Your task to perform on an android device: refresh tabs in the chrome app Image 0: 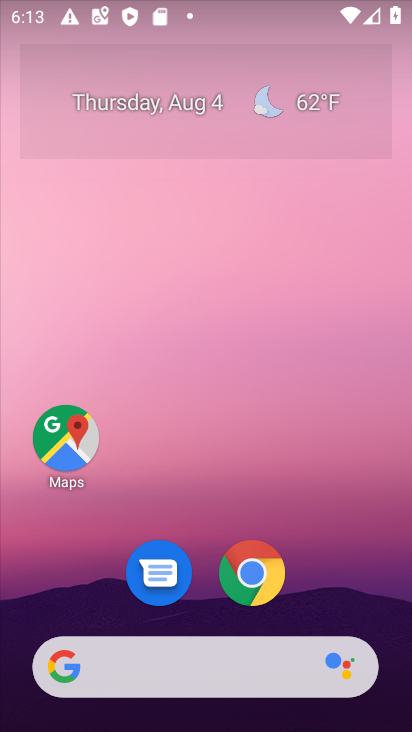
Step 0: click (254, 574)
Your task to perform on an android device: refresh tabs in the chrome app Image 1: 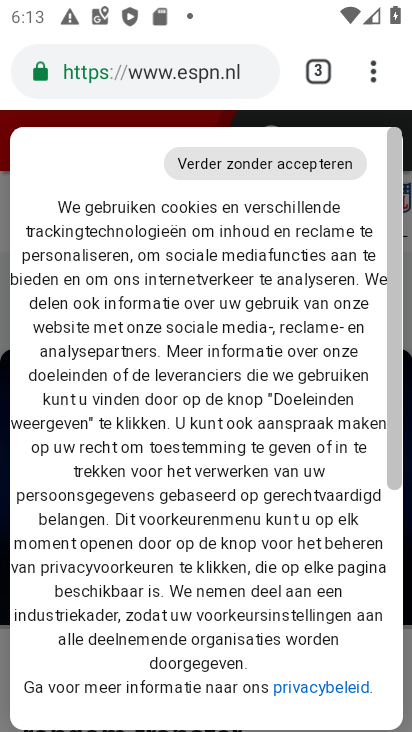
Step 1: click (375, 66)
Your task to perform on an android device: refresh tabs in the chrome app Image 2: 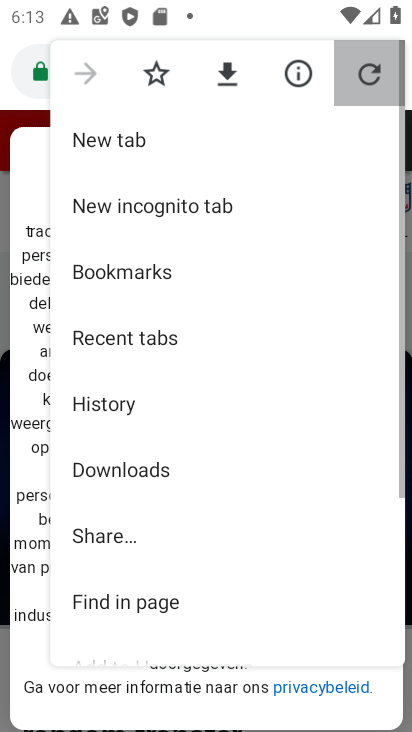
Step 2: click (375, 66)
Your task to perform on an android device: refresh tabs in the chrome app Image 3: 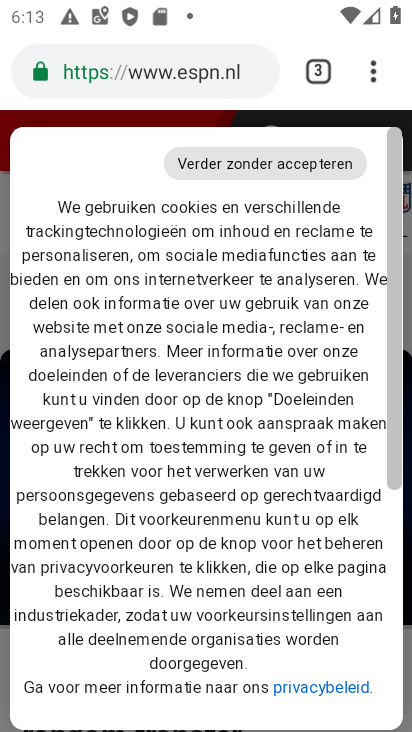
Step 3: click (375, 66)
Your task to perform on an android device: refresh tabs in the chrome app Image 4: 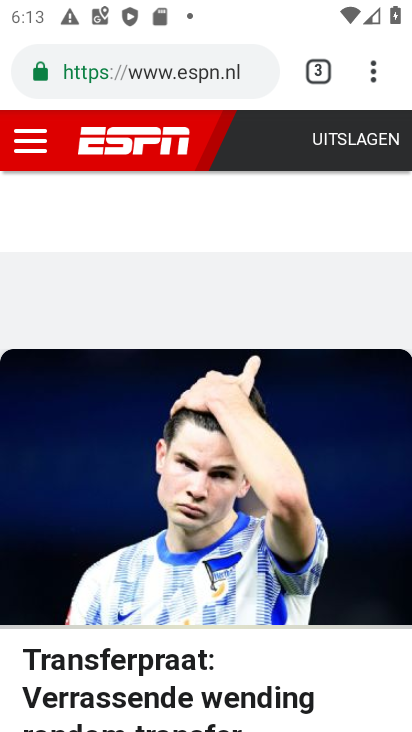
Step 4: task complete